Your task to perform on an android device: find photos in the google photos app Image 0: 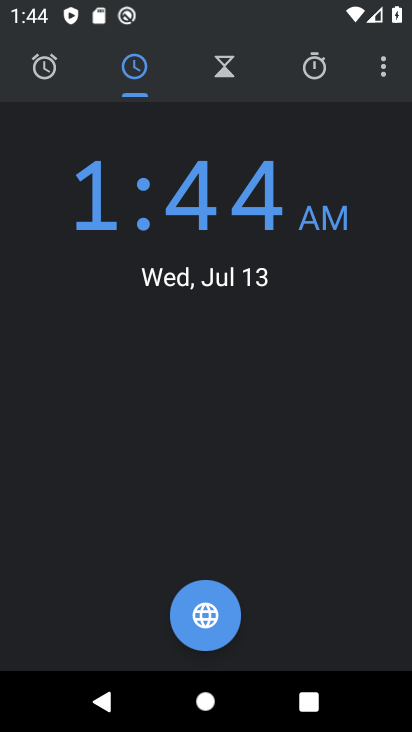
Step 0: press home button
Your task to perform on an android device: find photos in the google photos app Image 1: 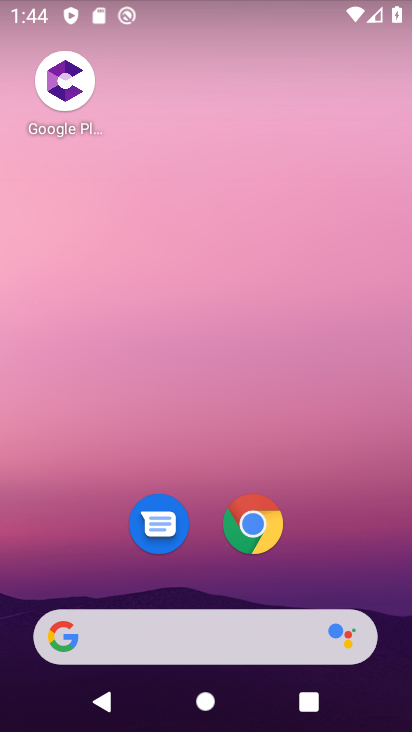
Step 1: drag from (319, 549) to (326, 19)
Your task to perform on an android device: find photos in the google photos app Image 2: 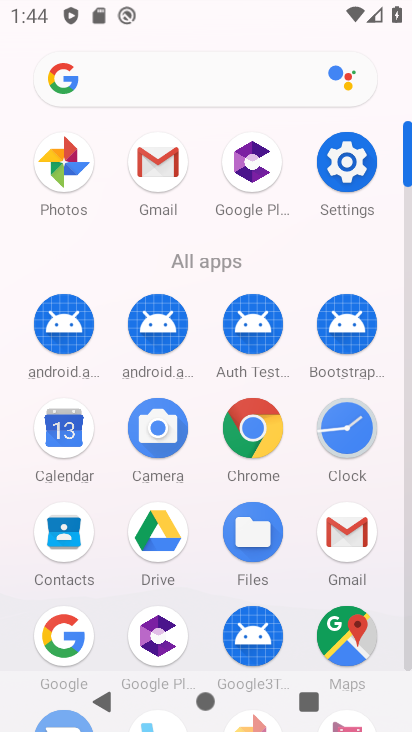
Step 2: click (71, 153)
Your task to perform on an android device: find photos in the google photos app Image 3: 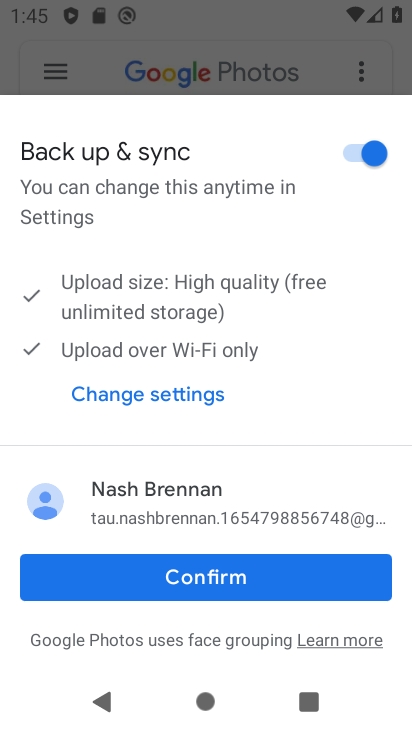
Step 3: click (280, 587)
Your task to perform on an android device: find photos in the google photos app Image 4: 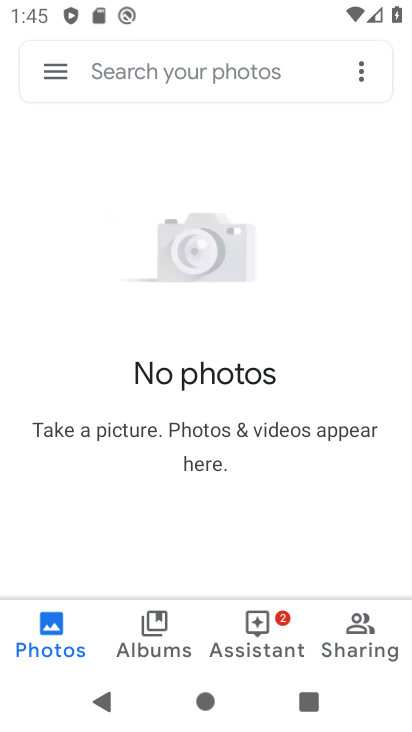
Step 4: task complete